Your task to perform on an android device: Search for Mexican restaurants on Maps Image 0: 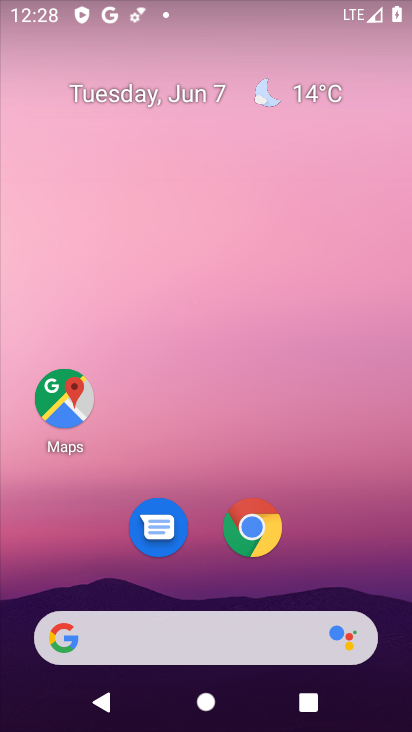
Step 0: drag from (316, 519) to (241, 20)
Your task to perform on an android device: Search for Mexican restaurants on Maps Image 1: 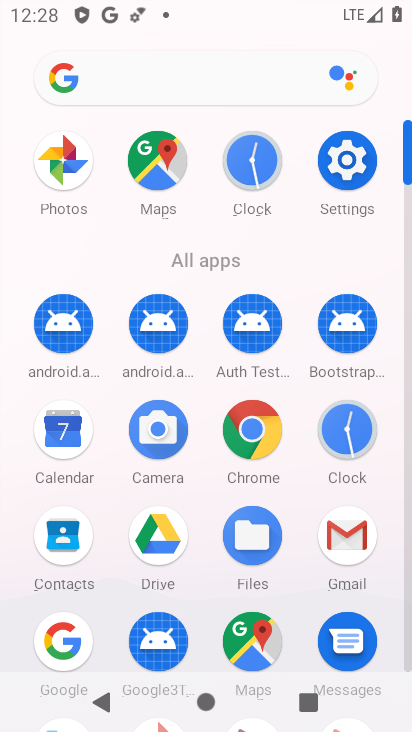
Step 1: drag from (11, 564) to (16, 214)
Your task to perform on an android device: Search for Mexican restaurants on Maps Image 2: 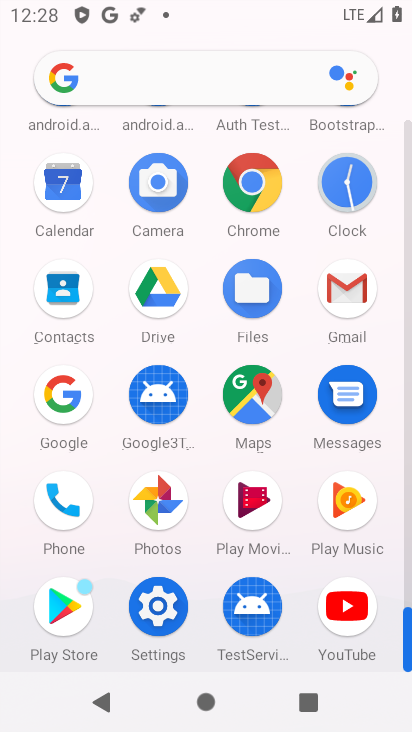
Step 2: click (250, 391)
Your task to perform on an android device: Search for Mexican restaurants on Maps Image 3: 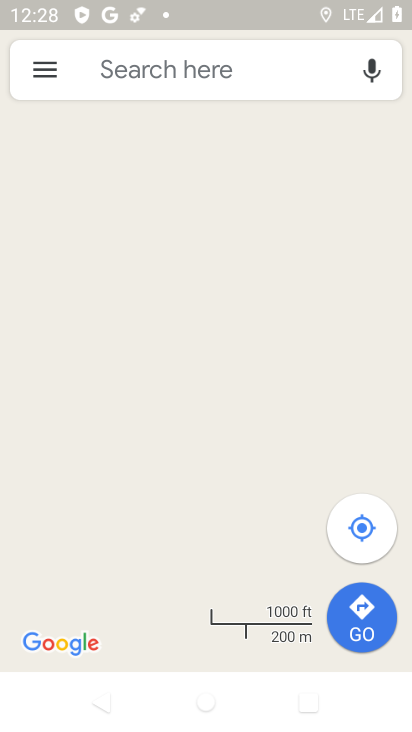
Step 3: click (249, 68)
Your task to perform on an android device: Search for Mexican restaurants on Maps Image 4: 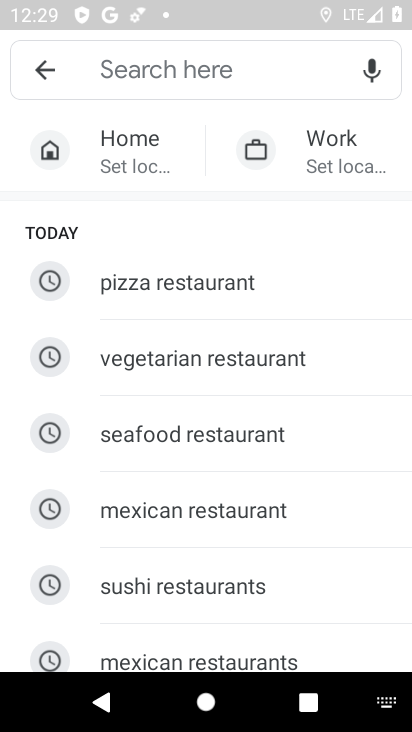
Step 4: click (180, 503)
Your task to perform on an android device: Search for Mexican restaurants on Maps Image 5: 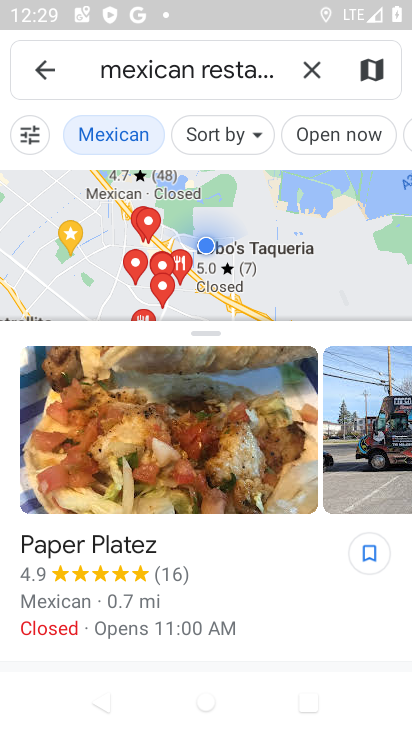
Step 5: task complete